Your task to perform on an android device: toggle airplane mode Image 0: 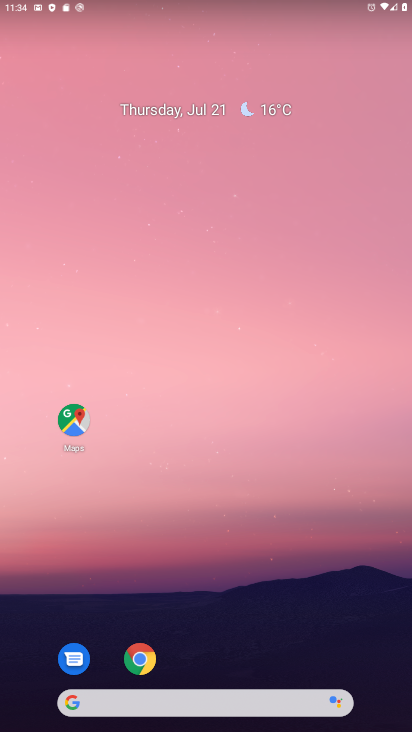
Step 0: drag from (206, 541) to (219, 91)
Your task to perform on an android device: toggle airplane mode Image 1: 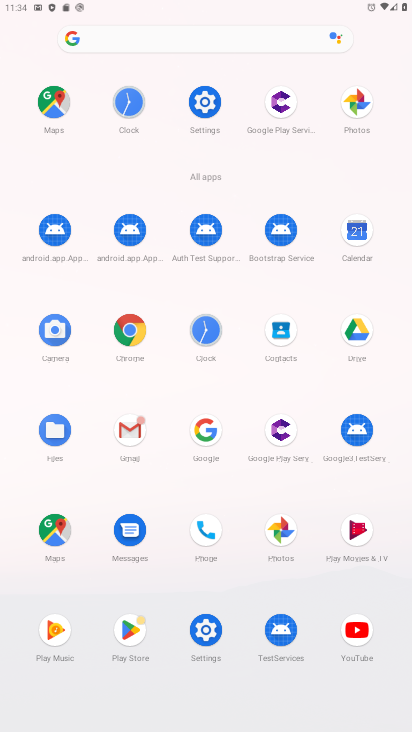
Step 1: click (204, 103)
Your task to perform on an android device: toggle airplane mode Image 2: 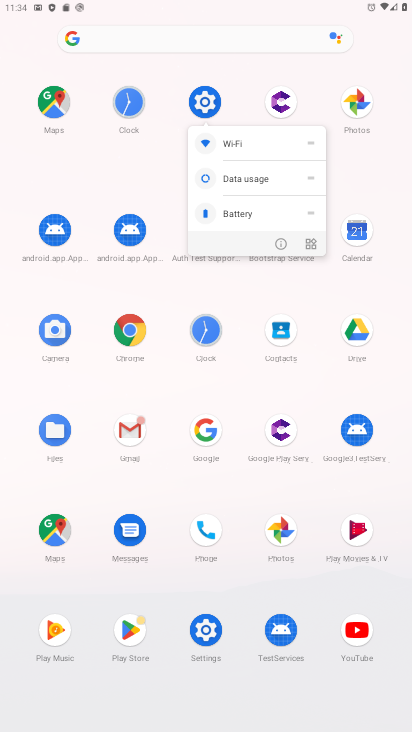
Step 2: click (207, 110)
Your task to perform on an android device: toggle airplane mode Image 3: 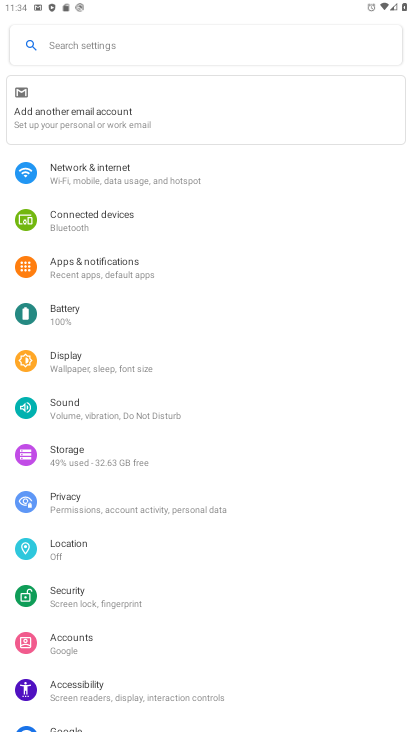
Step 3: click (114, 169)
Your task to perform on an android device: toggle airplane mode Image 4: 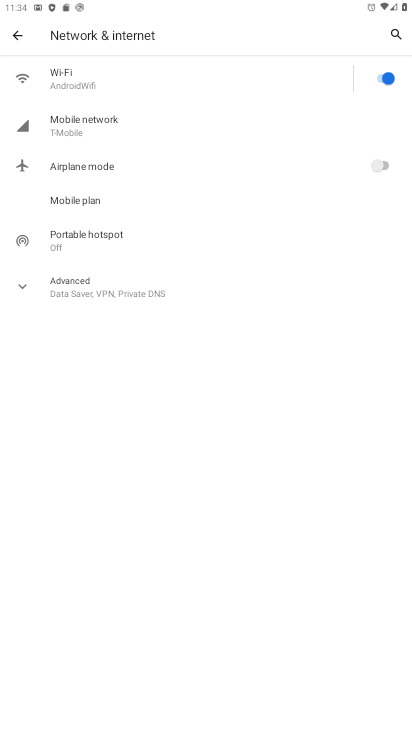
Step 4: click (366, 166)
Your task to perform on an android device: toggle airplane mode Image 5: 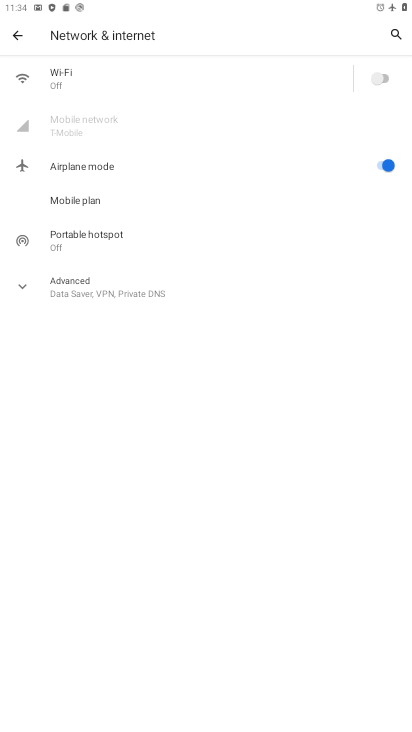
Step 5: task complete